Your task to perform on an android device: Go to battery settings Image 0: 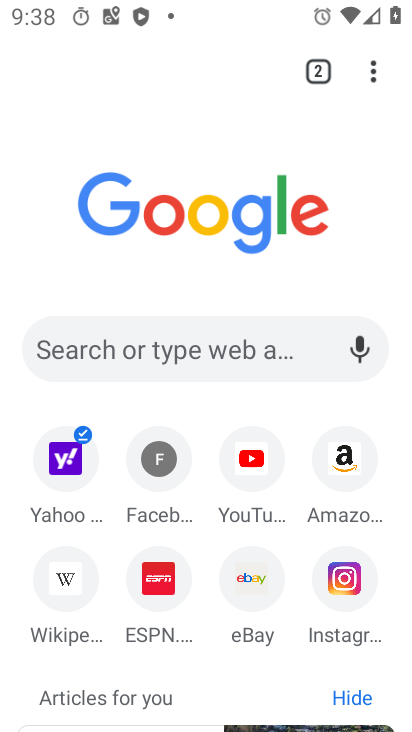
Step 0: press back button
Your task to perform on an android device: Go to battery settings Image 1: 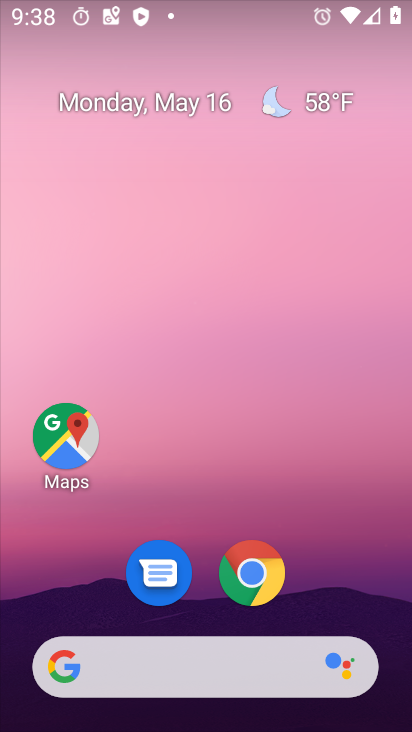
Step 1: drag from (347, 624) to (190, 12)
Your task to perform on an android device: Go to battery settings Image 2: 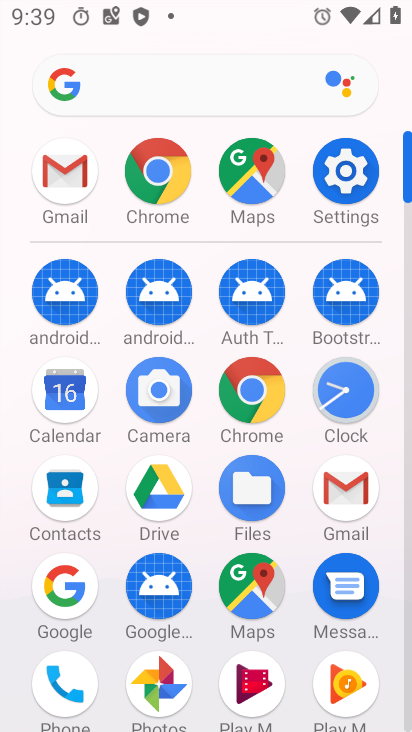
Step 2: click (343, 171)
Your task to perform on an android device: Go to battery settings Image 3: 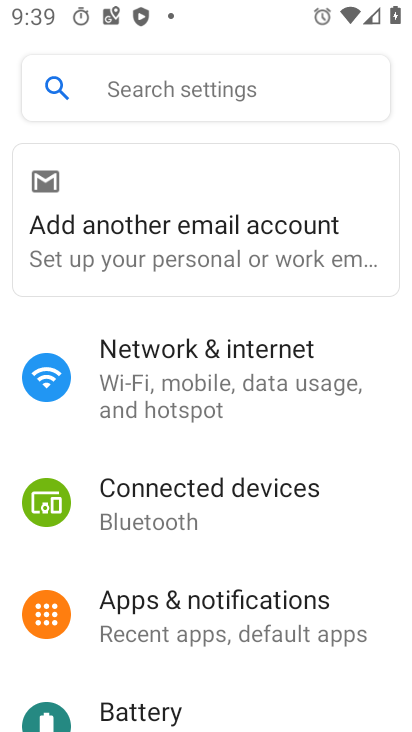
Step 3: drag from (194, 578) to (219, 351)
Your task to perform on an android device: Go to battery settings Image 4: 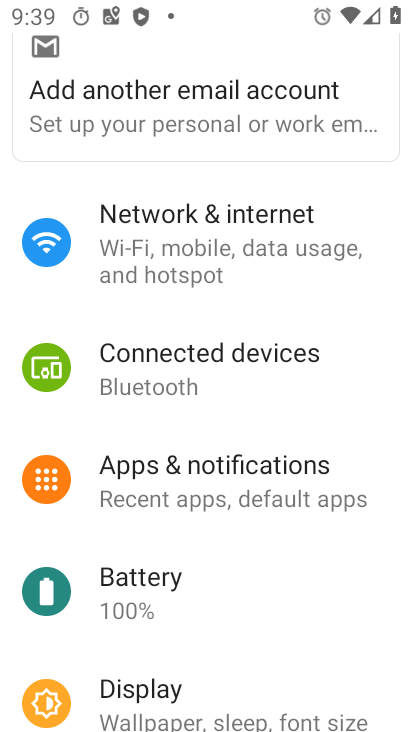
Step 4: drag from (194, 581) to (179, 211)
Your task to perform on an android device: Go to battery settings Image 5: 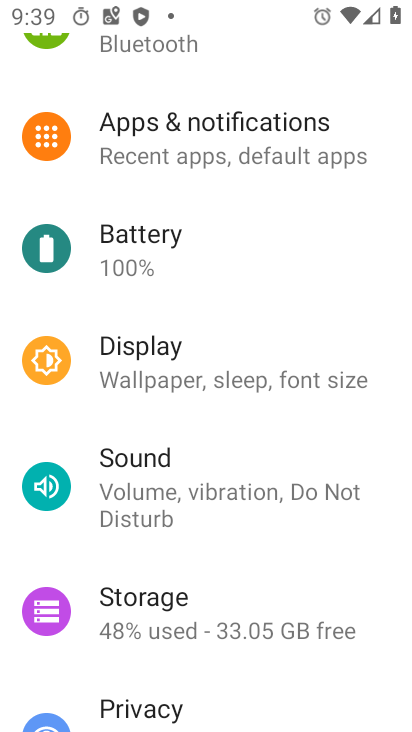
Step 5: click (112, 243)
Your task to perform on an android device: Go to battery settings Image 6: 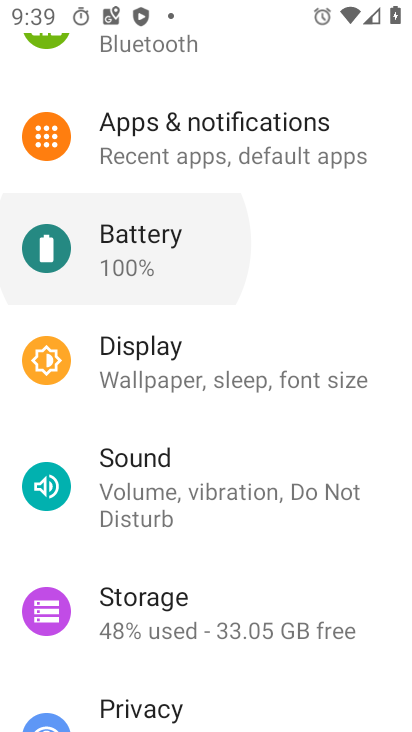
Step 6: click (112, 243)
Your task to perform on an android device: Go to battery settings Image 7: 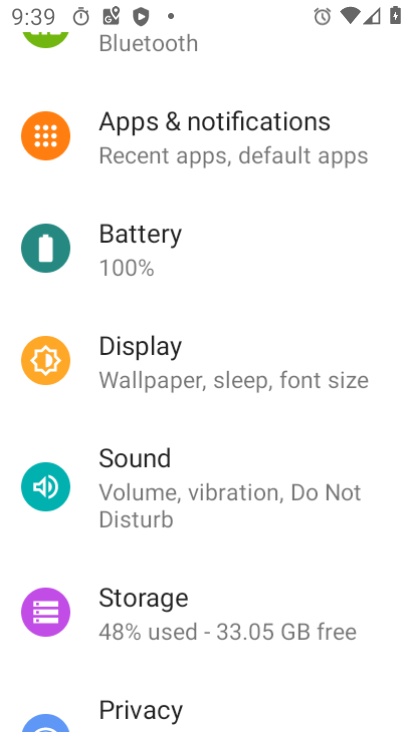
Step 7: click (112, 243)
Your task to perform on an android device: Go to battery settings Image 8: 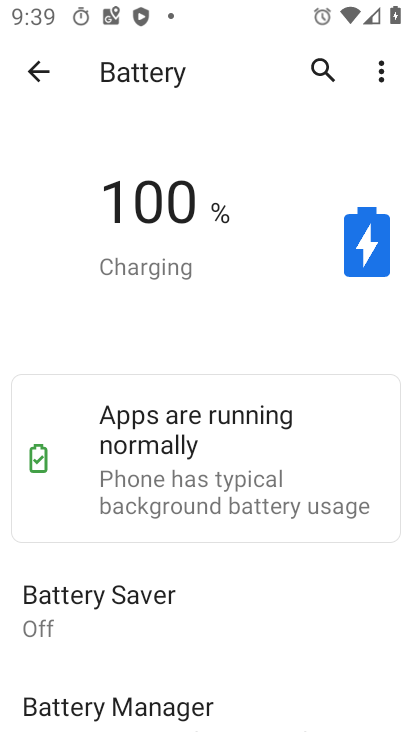
Step 8: task complete